Your task to perform on an android device: Is it going to rain today? Image 0: 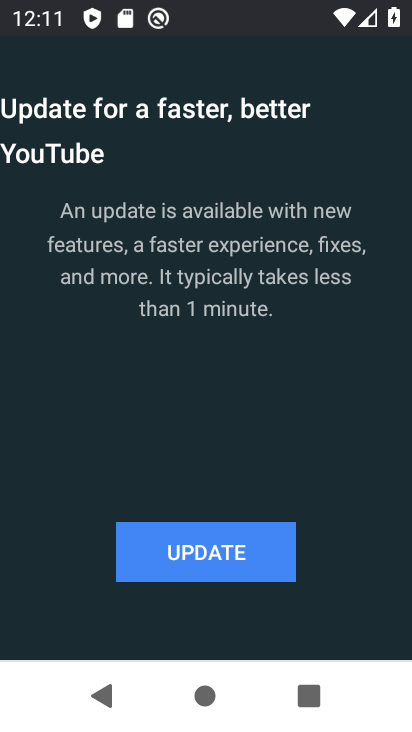
Step 0: press back button
Your task to perform on an android device: Is it going to rain today? Image 1: 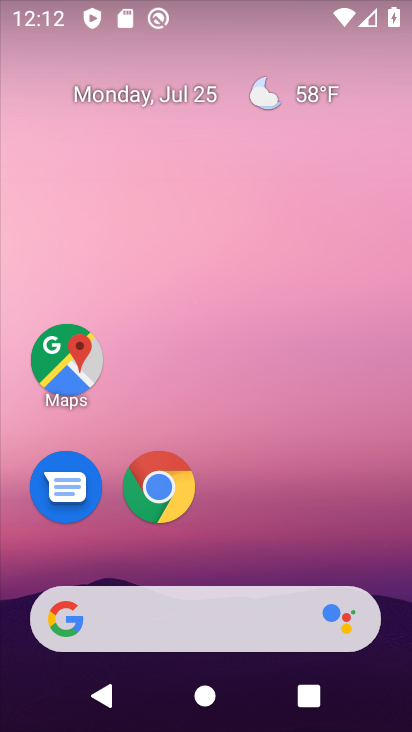
Step 1: click (275, 94)
Your task to perform on an android device: Is it going to rain today? Image 2: 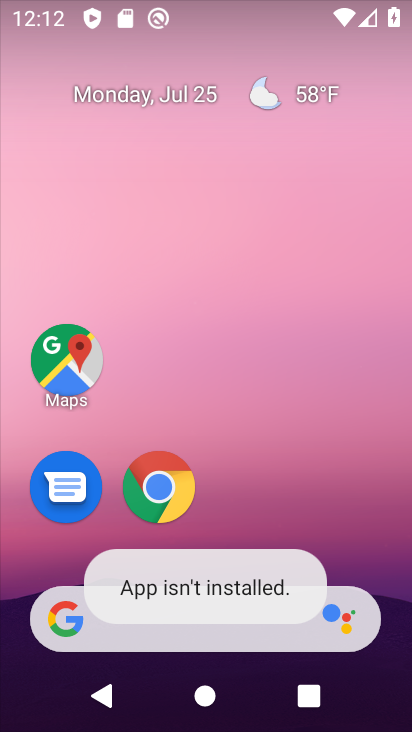
Step 2: click (138, 646)
Your task to perform on an android device: Is it going to rain today? Image 3: 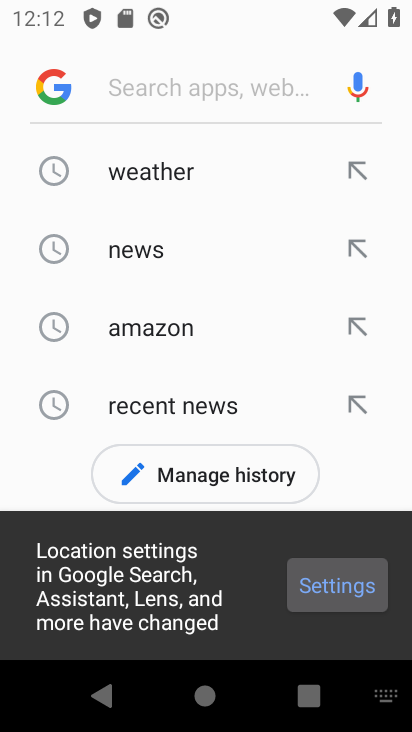
Step 3: click (161, 178)
Your task to perform on an android device: Is it going to rain today? Image 4: 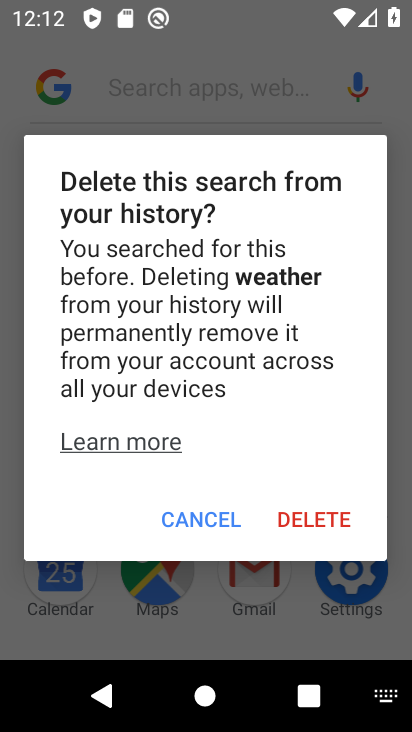
Step 4: click (210, 522)
Your task to perform on an android device: Is it going to rain today? Image 5: 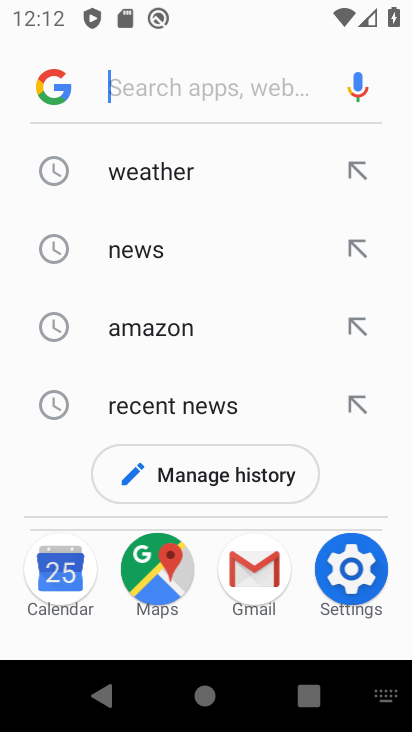
Step 5: click (168, 171)
Your task to perform on an android device: Is it going to rain today? Image 6: 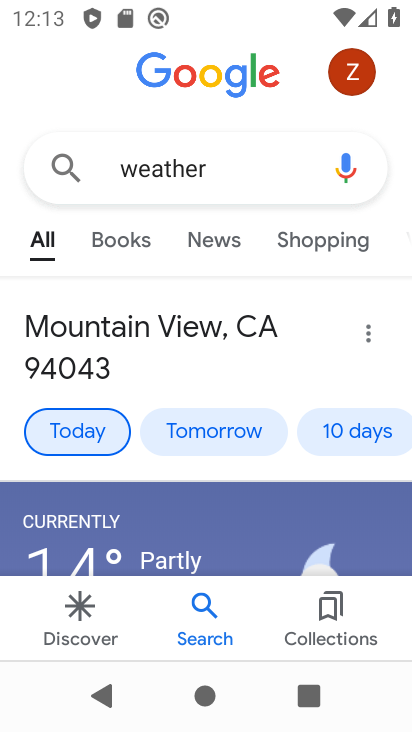
Step 6: task complete